Your task to perform on an android device: Show me recent news Image 0: 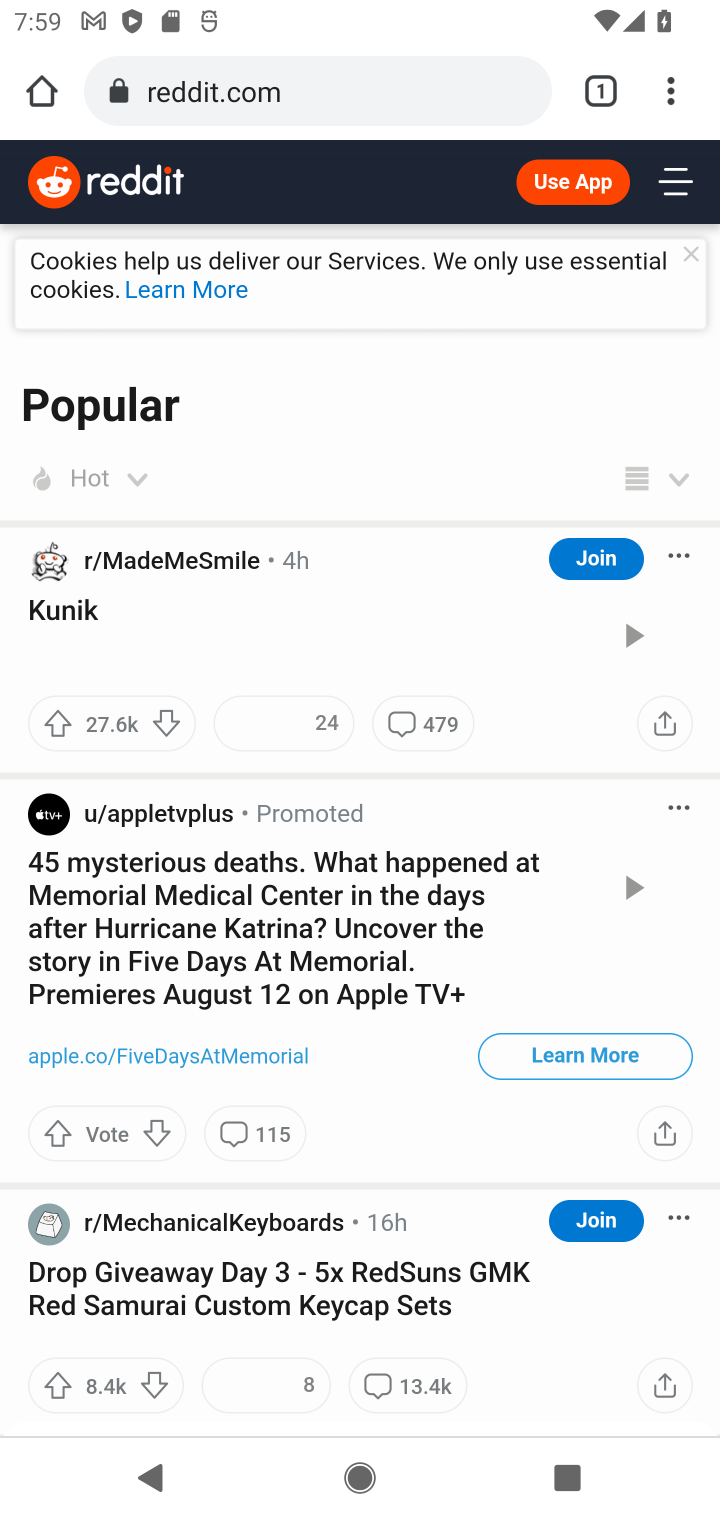
Step 0: press home button
Your task to perform on an android device: Show me recent news Image 1: 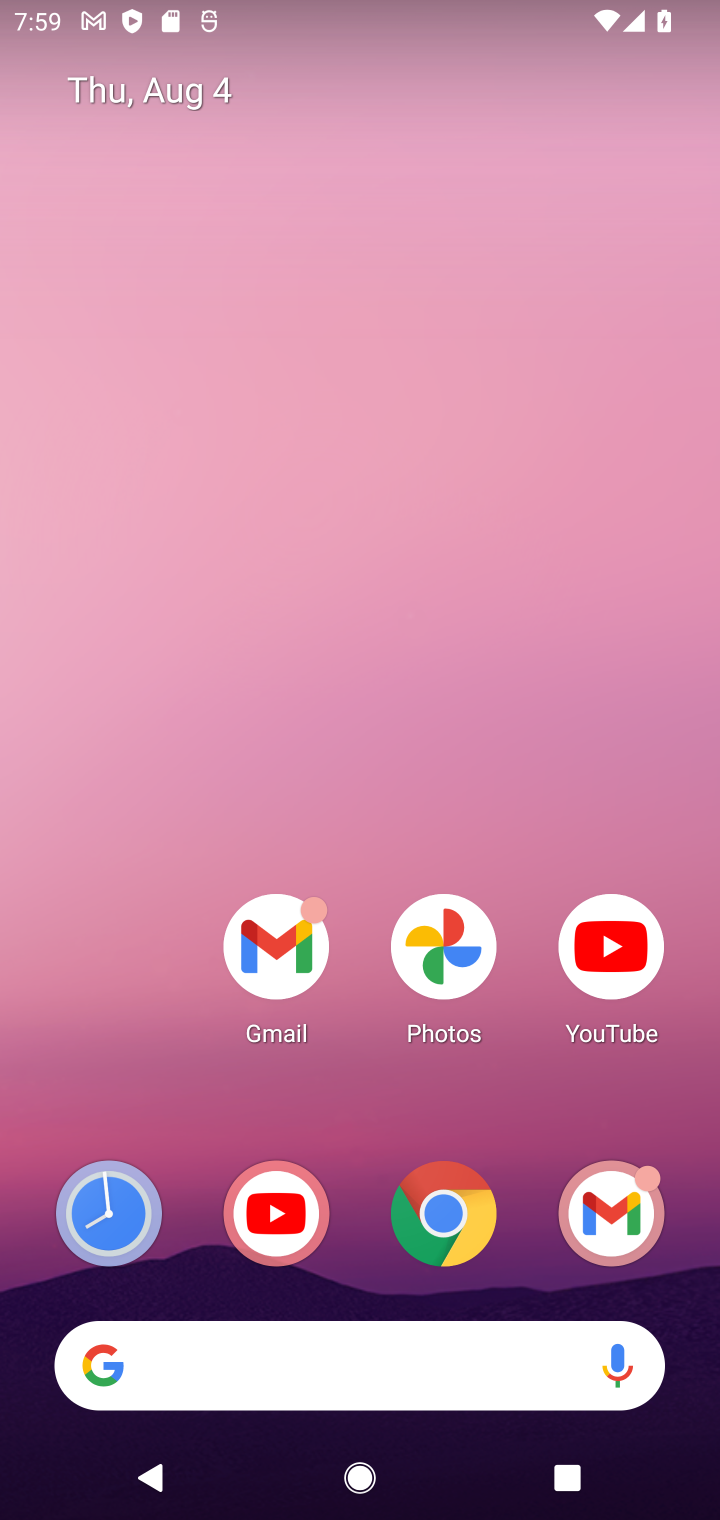
Step 1: click (342, 1336)
Your task to perform on an android device: Show me recent news Image 2: 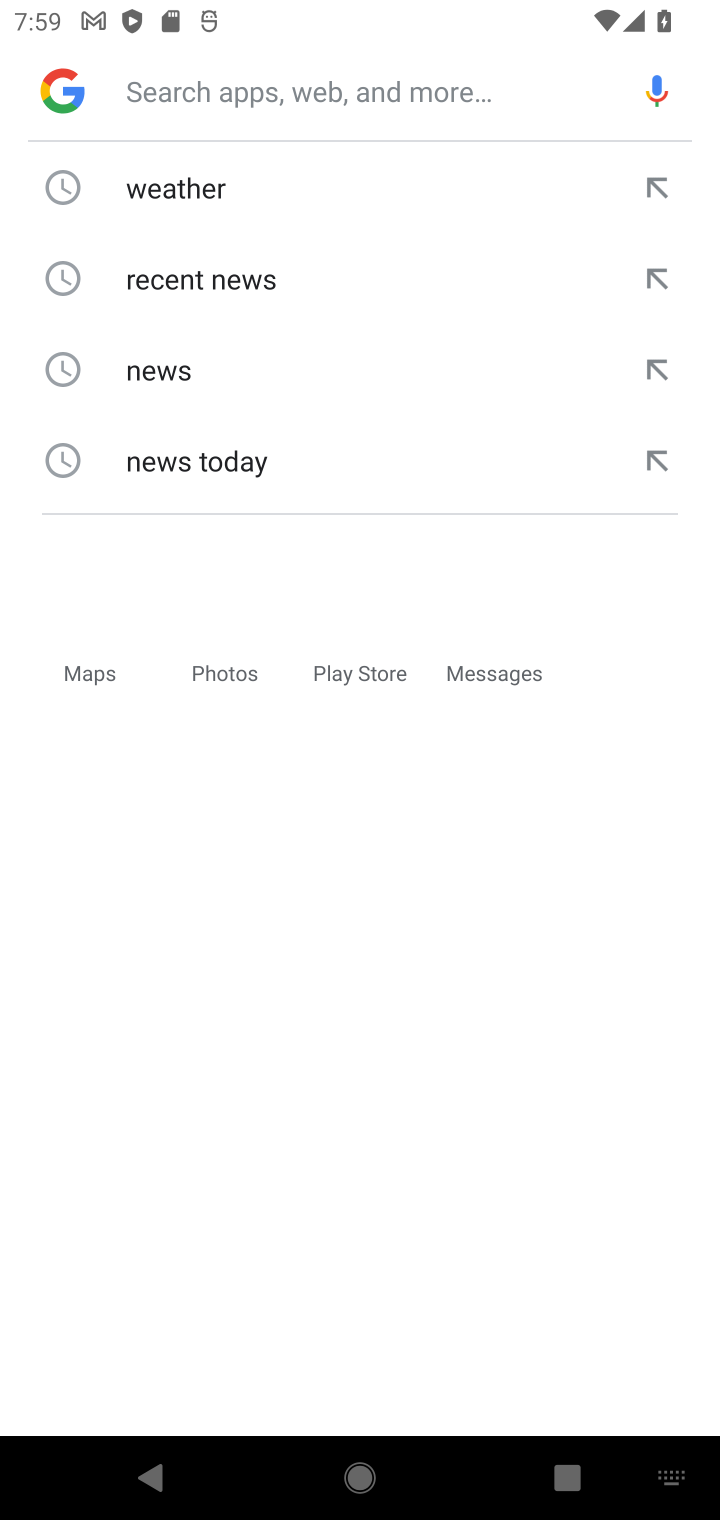
Step 2: click (213, 293)
Your task to perform on an android device: Show me recent news Image 3: 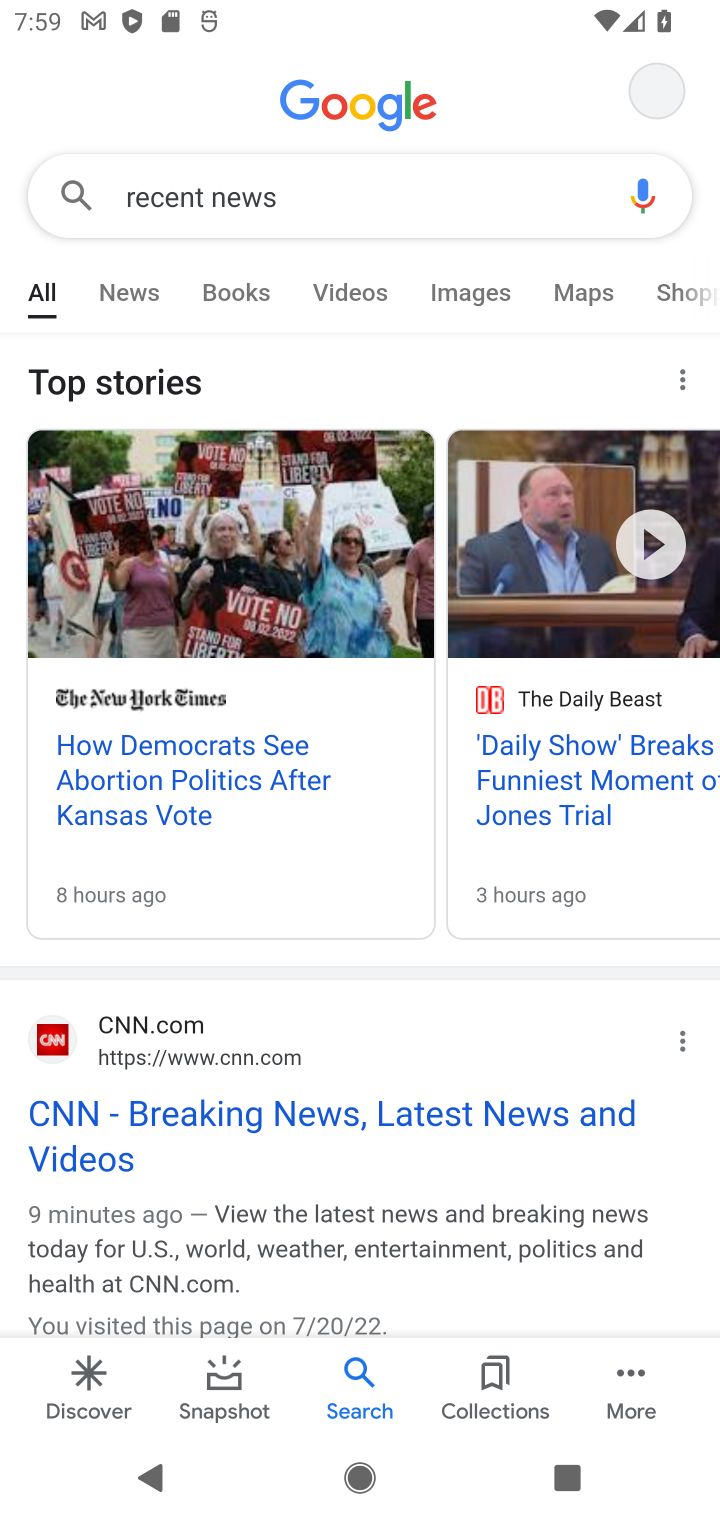
Step 3: task complete